Your task to perform on an android device: Go to CNN.com Image 0: 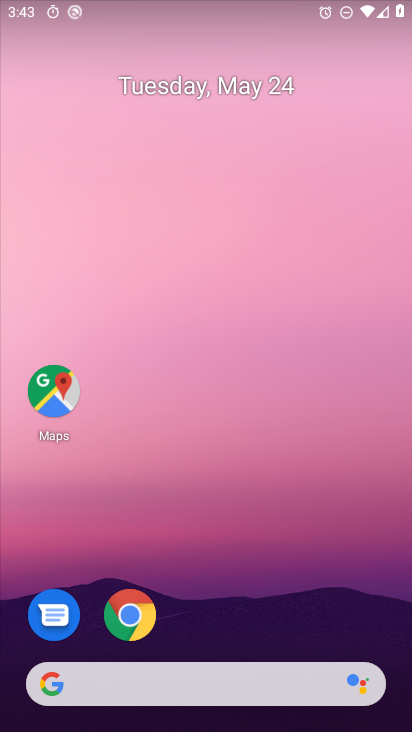
Step 0: drag from (207, 601) to (194, 216)
Your task to perform on an android device: Go to CNN.com Image 1: 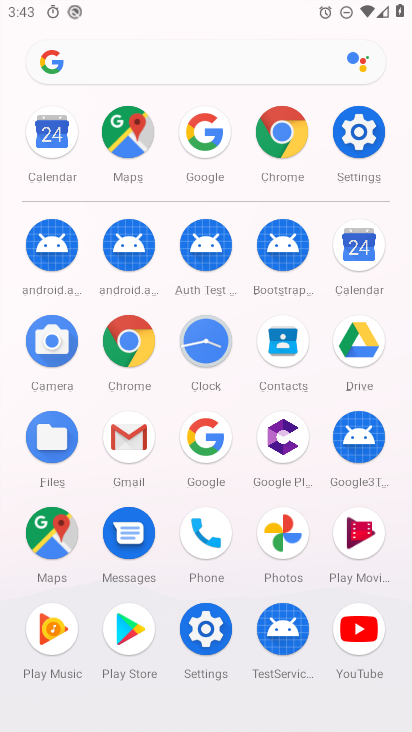
Step 1: click (225, 430)
Your task to perform on an android device: Go to CNN.com Image 2: 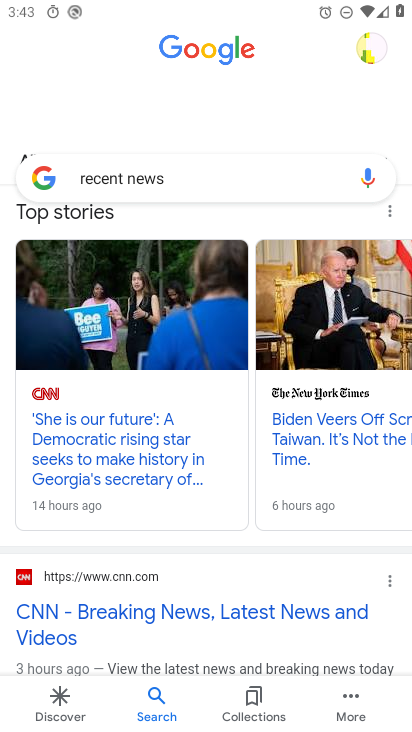
Step 2: click (187, 169)
Your task to perform on an android device: Go to CNN.com Image 3: 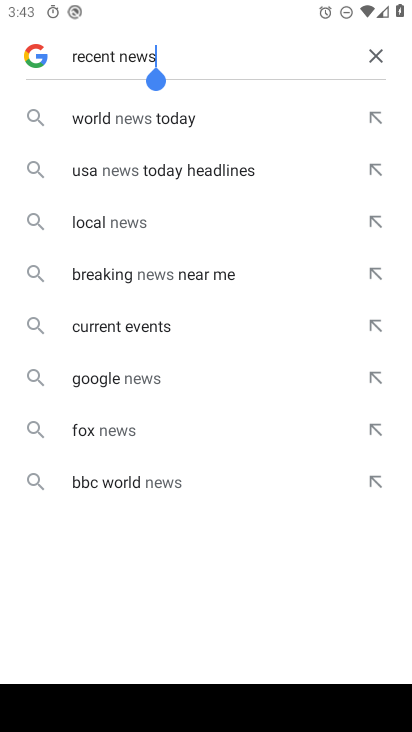
Step 3: click (376, 54)
Your task to perform on an android device: Go to CNN.com Image 4: 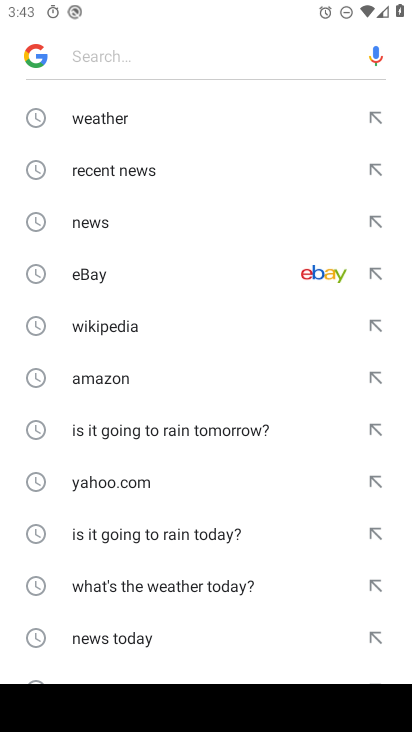
Step 4: drag from (96, 551) to (96, 254)
Your task to perform on an android device: Go to CNN.com Image 5: 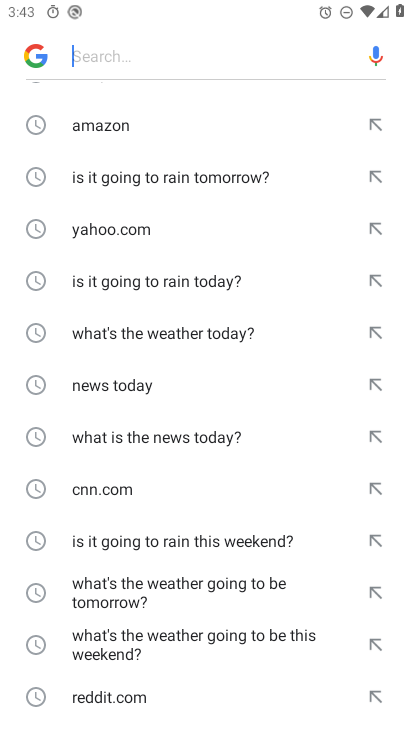
Step 5: click (132, 488)
Your task to perform on an android device: Go to CNN.com Image 6: 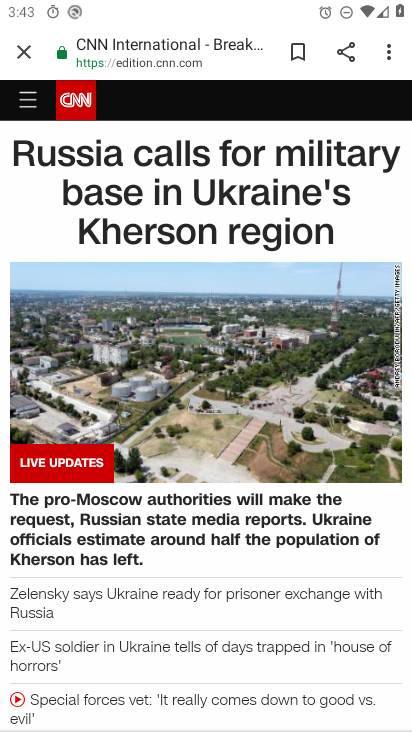
Step 6: task complete